Your task to perform on an android device: turn off javascript in the chrome app Image 0: 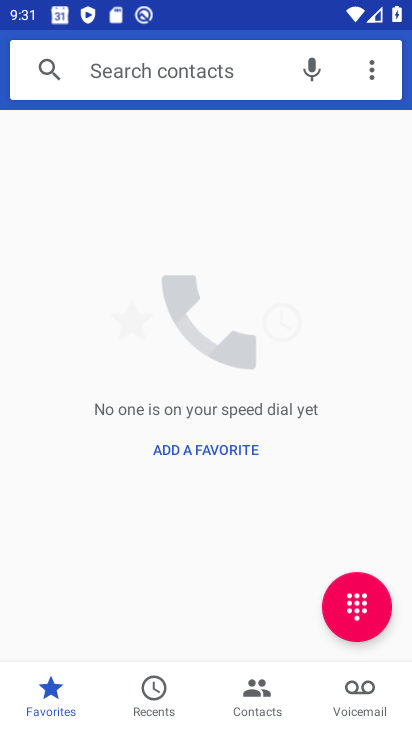
Step 0: press home button
Your task to perform on an android device: turn off javascript in the chrome app Image 1: 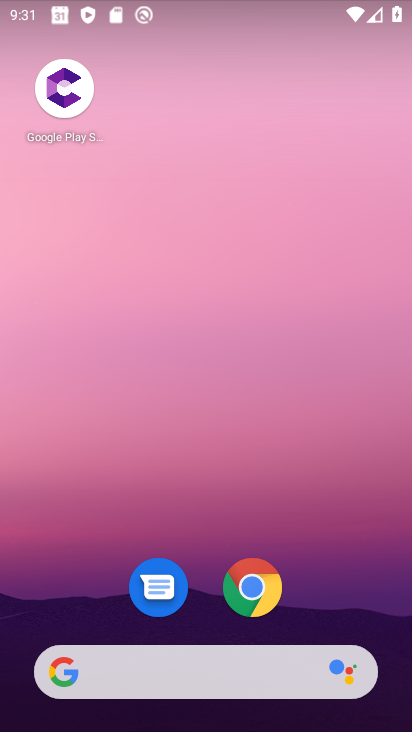
Step 1: click (256, 584)
Your task to perform on an android device: turn off javascript in the chrome app Image 2: 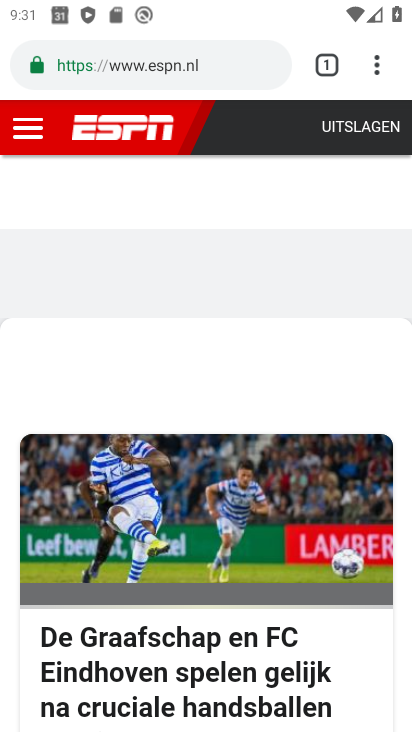
Step 2: click (377, 74)
Your task to perform on an android device: turn off javascript in the chrome app Image 3: 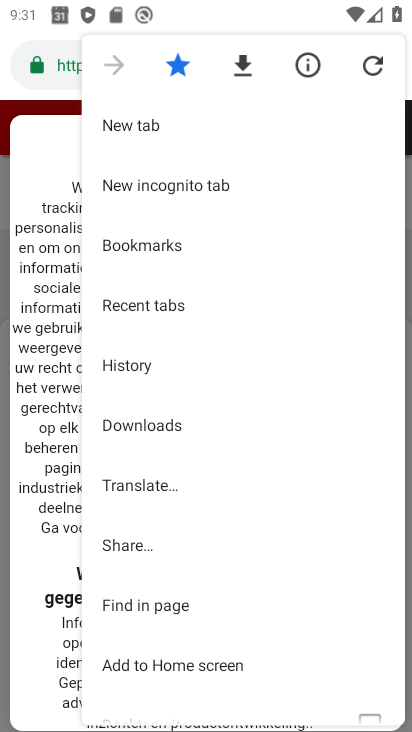
Step 3: drag from (187, 632) to (184, 277)
Your task to perform on an android device: turn off javascript in the chrome app Image 4: 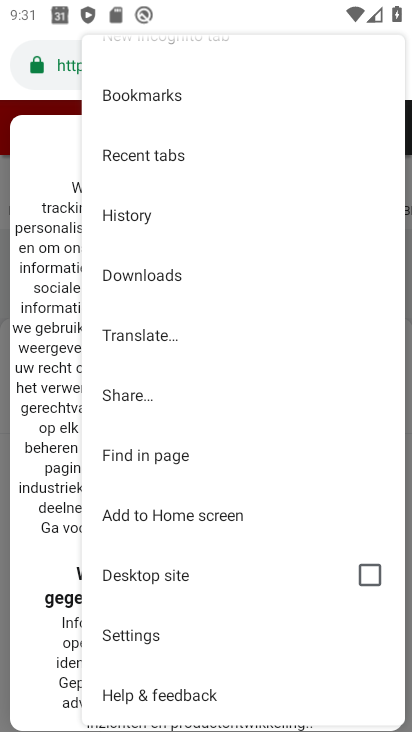
Step 4: click (136, 638)
Your task to perform on an android device: turn off javascript in the chrome app Image 5: 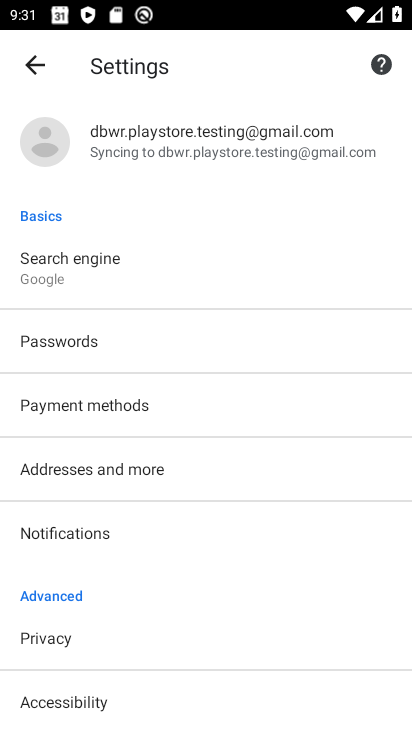
Step 5: drag from (142, 685) to (144, 239)
Your task to perform on an android device: turn off javascript in the chrome app Image 6: 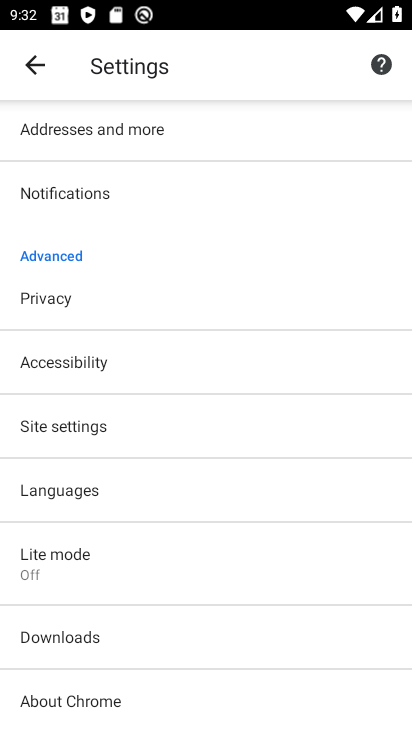
Step 6: click (101, 417)
Your task to perform on an android device: turn off javascript in the chrome app Image 7: 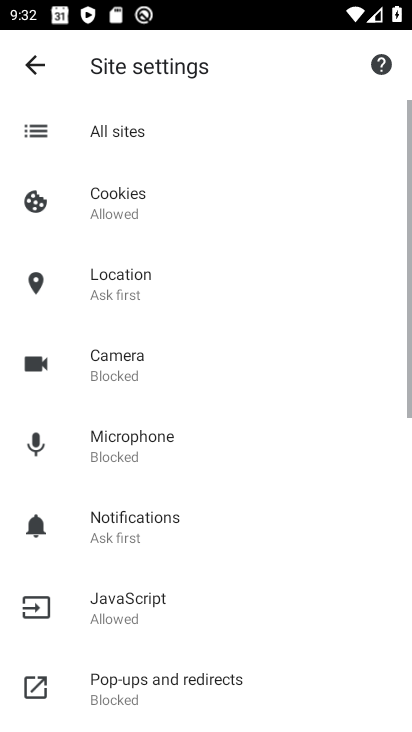
Step 7: click (108, 593)
Your task to perform on an android device: turn off javascript in the chrome app Image 8: 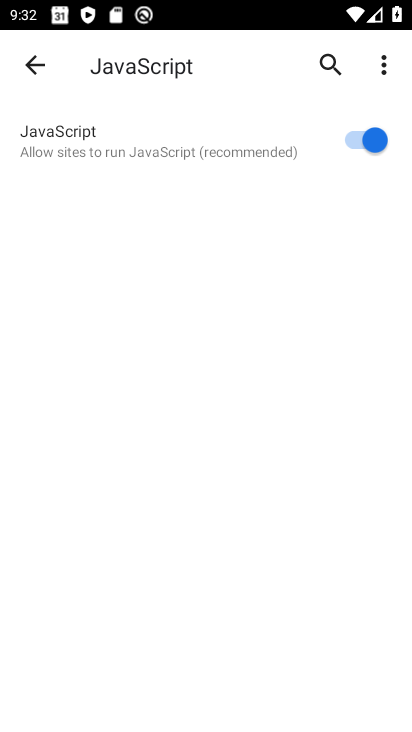
Step 8: click (353, 143)
Your task to perform on an android device: turn off javascript in the chrome app Image 9: 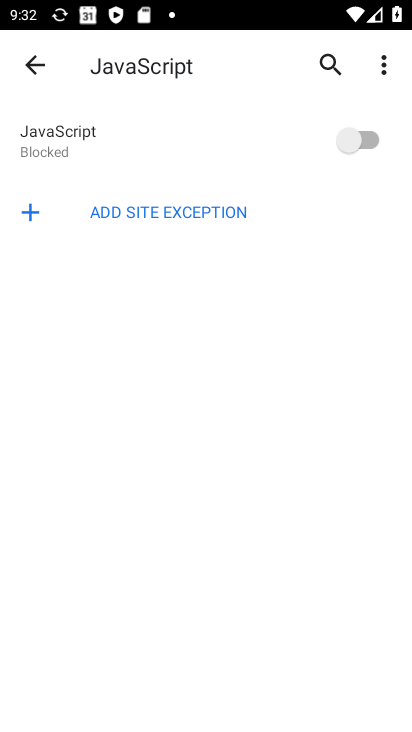
Step 9: task complete